Your task to perform on an android device: open app "Flipkart Online Shopping App" (install if not already installed) Image 0: 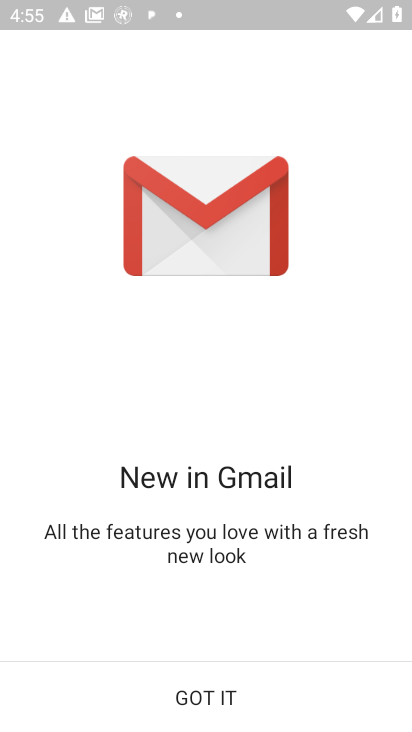
Step 0: press home button
Your task to perform on an android device: open app "Flipkart Online Shopping App" (install if not already installed) Image 1: 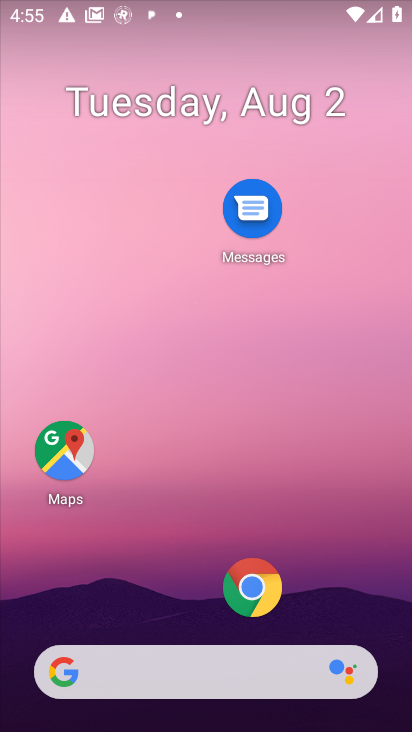
Step 1: drag from (198, 600) to (171, 155)
Your task to perform on an android device: open app "Flipkart Online Shopping App" (install if not already installed) Image 2: 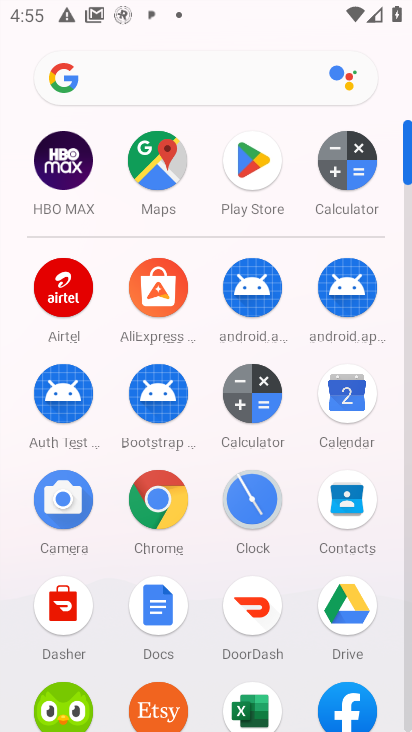
Step 2: click (240, 171)
Your task to perform on an android device: open app "Flipkart Online Shopping App" (install if not already installed) Image 3: 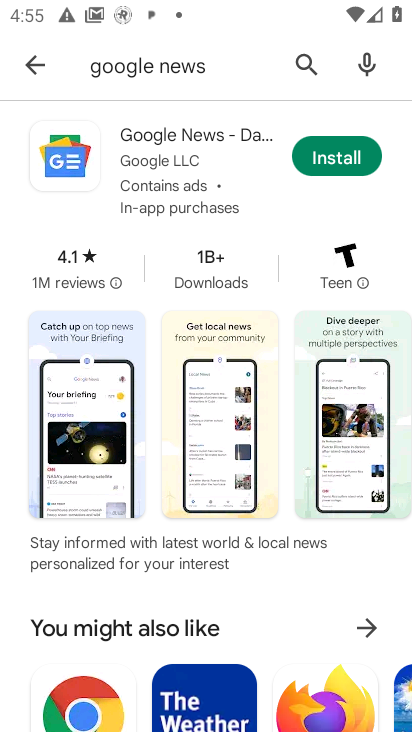
Step 3: click (308, 56)
Your task to perform on an android device: open app "Flipkart Online Shopping App" (install if not already installed) Image 4: 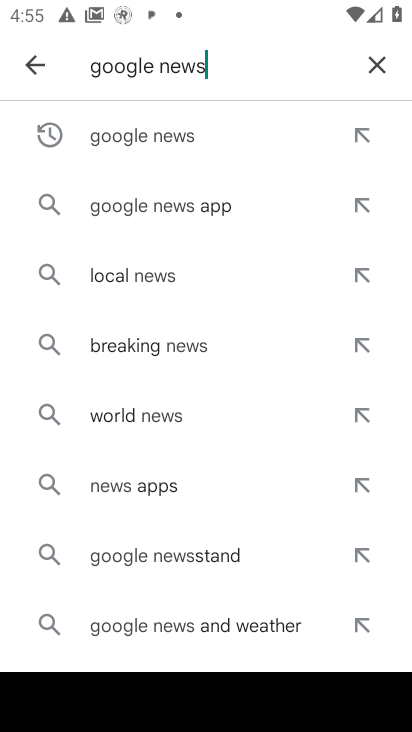
Step 4: click (364, 70)
Your task to perform on an android device: open app "Flipkart Online Shopping App" (install if not already installed) Image 5: 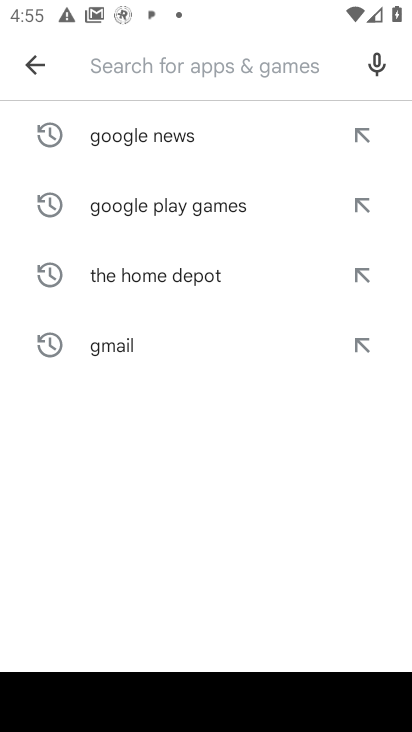
Step 5: type "kart Online Shopping App"
Your task to perform on an android device: open app "Flipkart Online Shopping App" (install if not already installed) Image 6: 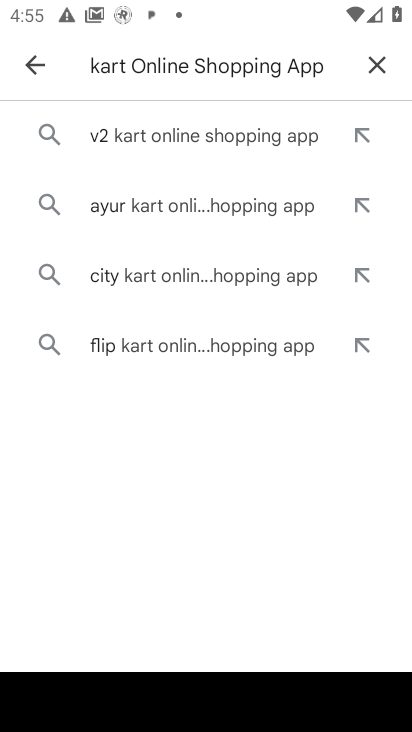
Step 6: click (366, 71)
Your task to perform on an android device: open app "Flipkart Online Shopping App" (install if not already installed) Image 7: 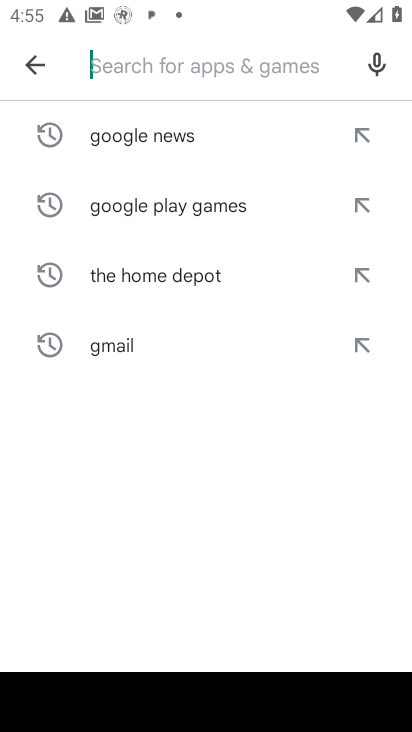
Step 7: type "Flipkart Online Shopping App"
Your task to perform on an android device: open app "Flipkart Online Shopping App" (install if not already installed) Image 8: 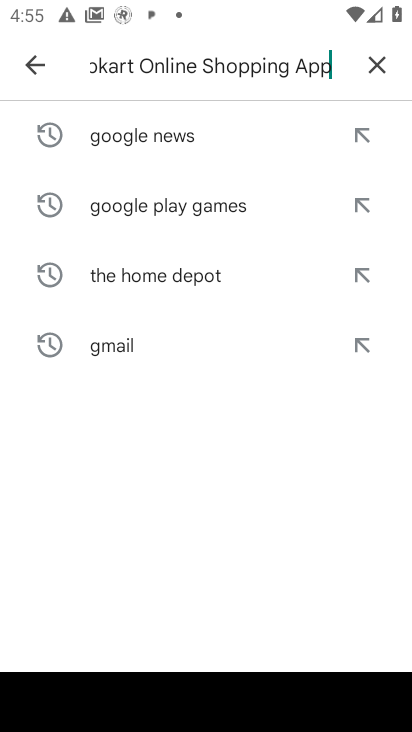
Step 8: type ""
Your task to perform on an android device: open app "Flipkart Online Shopping App" (install if not already installed) Image 9: 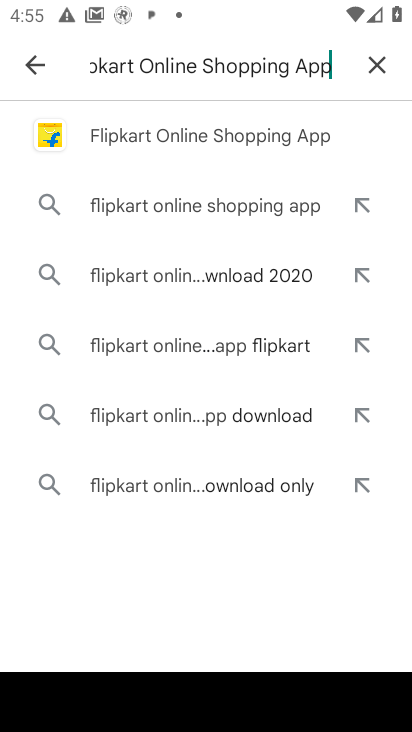
Step 9: click (147, 129)
Your task to perform on an android device: open app "Flipkart Online Shopping App" (install if not already installed) Image 10: 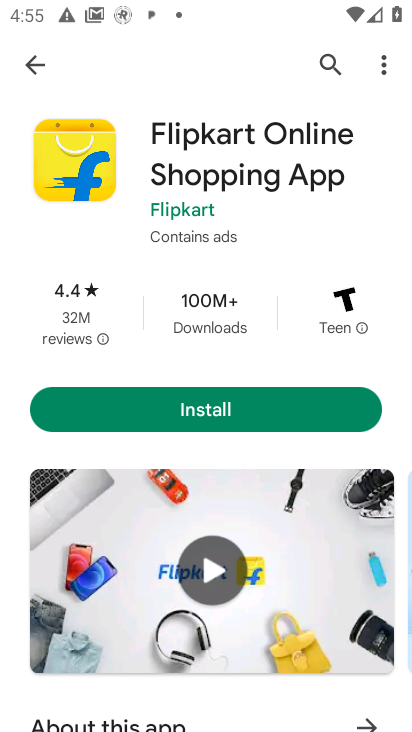
Step 10: click (114, 400)
Your task to perform on an android device: open app "Flipkart Online Shopping App" (install if not already installed) Image 11: 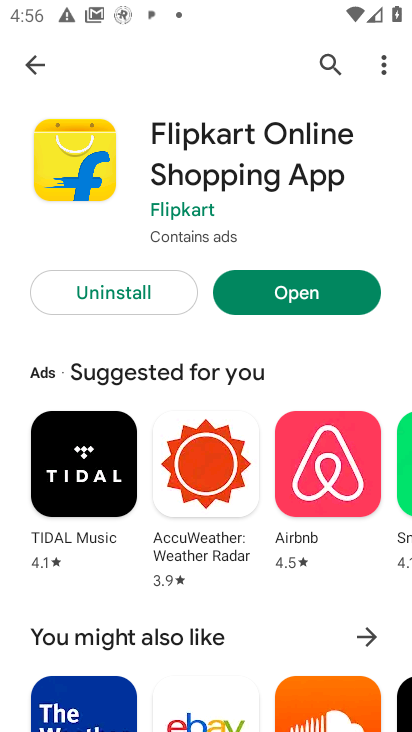
Step 11: click (271, 295)
Your task to perform on an android device: open app "Flipkart Online Shopping App" (install if not already installed) Image 12: 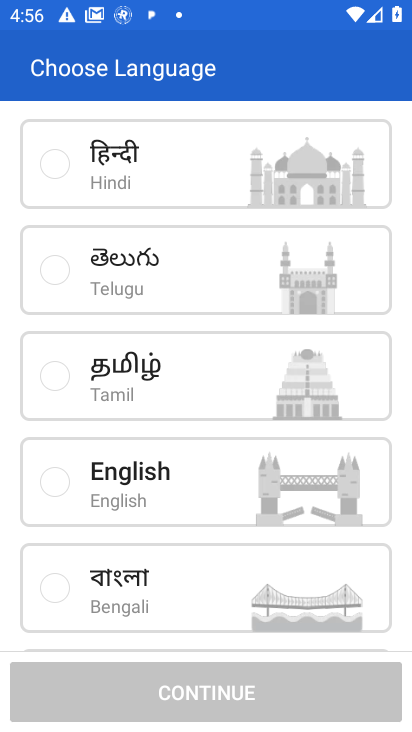
Step 12: task complete